Your task to perform on an android device: Open maps Image 0: 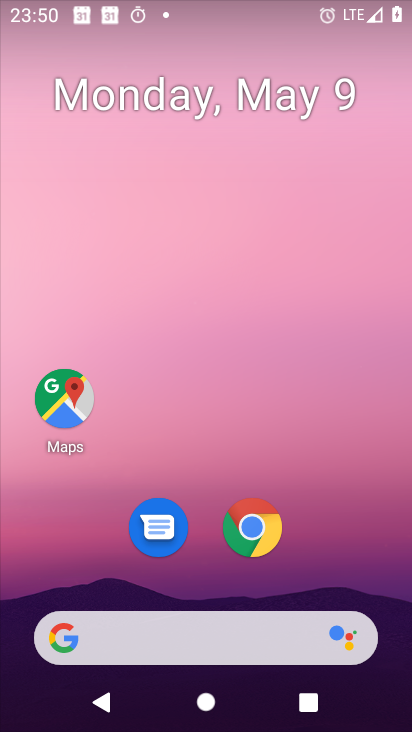
Step 0: click (67, 404)
Your task to perform on an android device: Open maps Image 1: 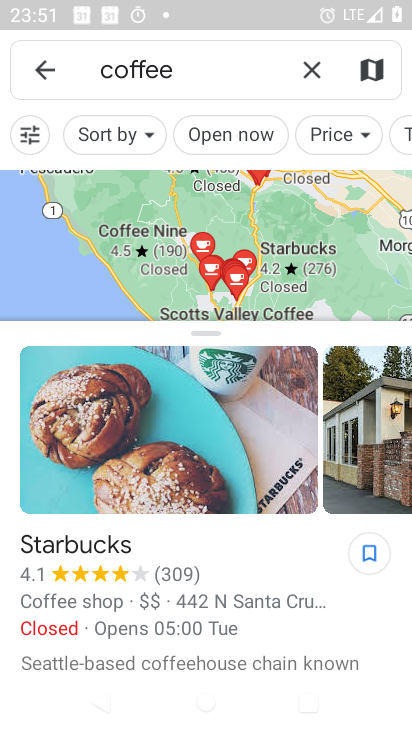
Step 1: task complete